Your task to perform on an android device: change the upload size in google photos Image 0: 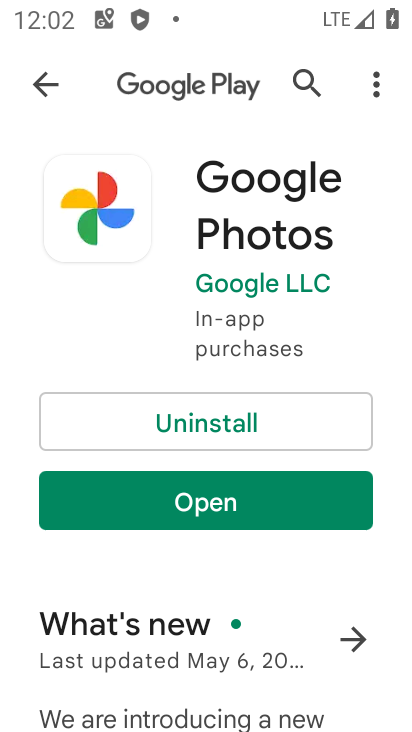
Step 0: press home button
Your task to perform on an android device: change the upload size in google photos Image 1: 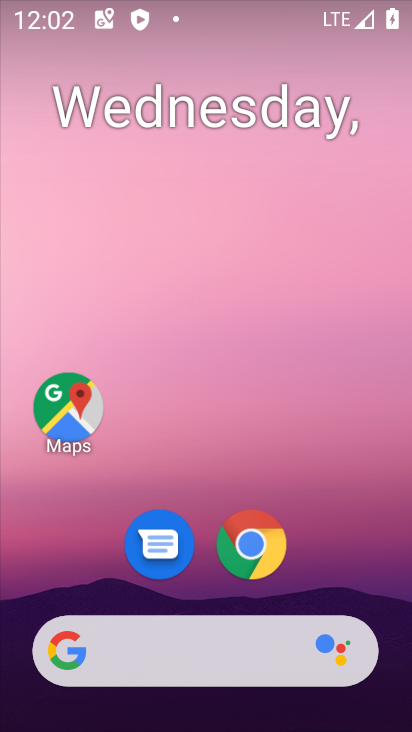
Step 1: drag from (380, 630) to (280, 75)
Your task to perform on an android device: change the upload size in google photos Image 2: 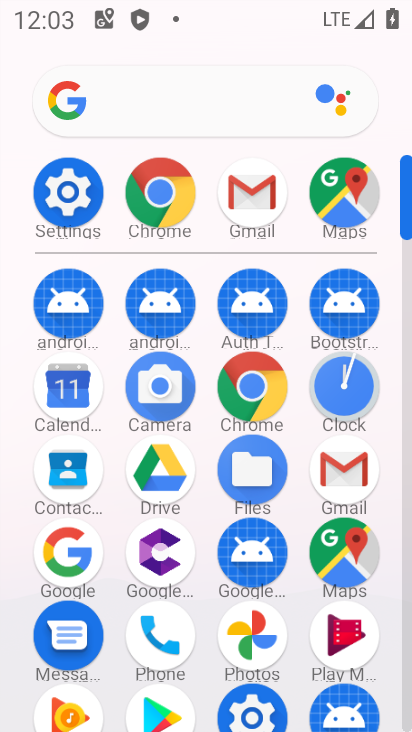
Step 2: click (248, 627)
Your task to perform on an android device: change the upload size in google photos Image 3: 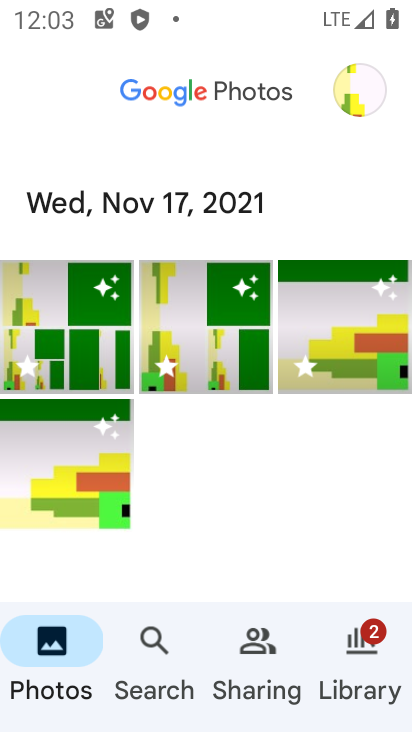
Step 3: click (368, 94)
Your task to perform on an android device: change the upload size in google photos Image 4: 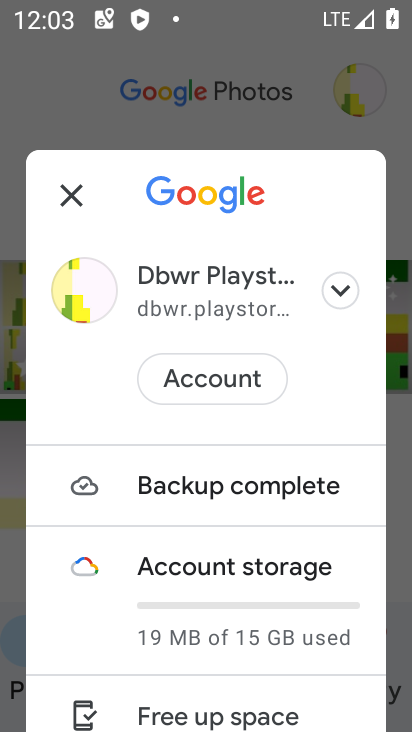
Step 4: drag from (214, 617) to (269, 253)
Your task to perform on an android device: change the upload size in google photos Image 5: 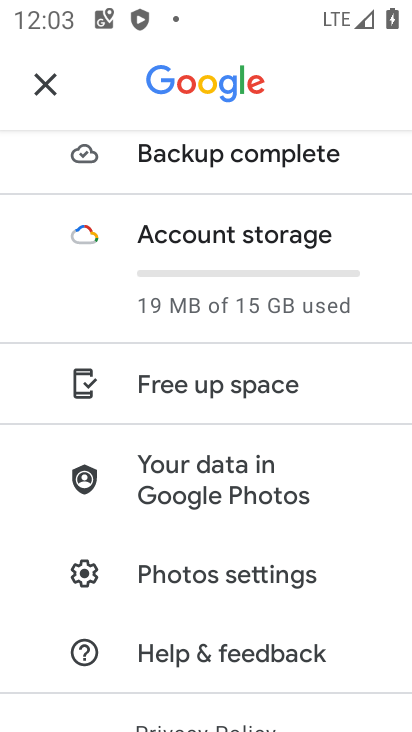
Step 5: click (197, 579)
Your task to perform on an android device: change the upload size in google photos Image 6: 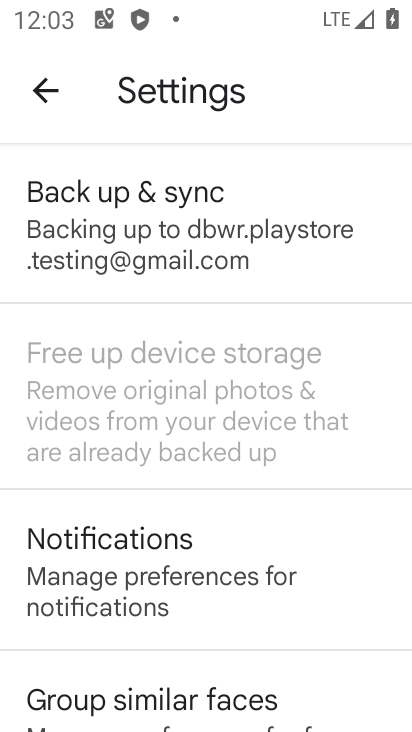
Step 6: click (185, 223)
Your task to perform on an android device: change the upload size in google photos Image 7: 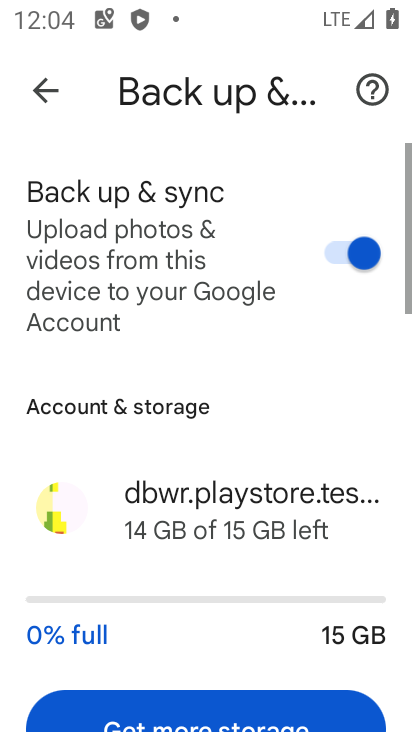
Step 7: drag from (188, 652) to (218, 97)
Your task to perform on an android device: change the upload size in google photos Image 8: 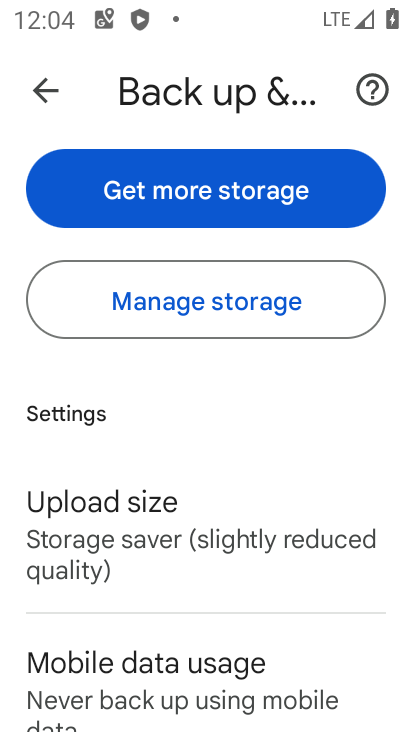
Step 8: click (238, 542)
Your task to perform on an android device: change the upload size in google photos Image 9: 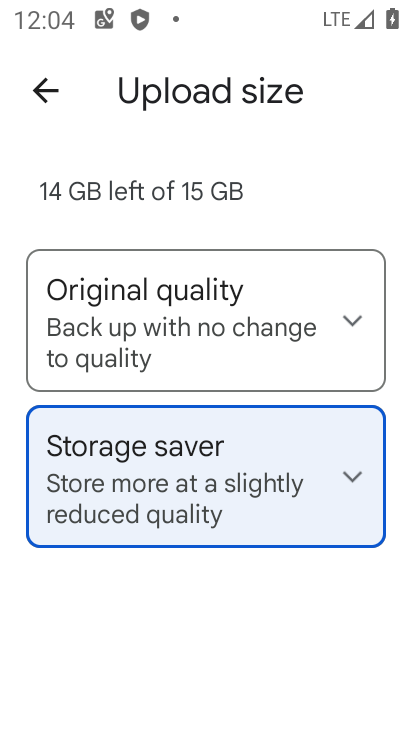
Step 9: click (180, 293)
Your task to perform on an android device: change the upload size in google photos Image 10: 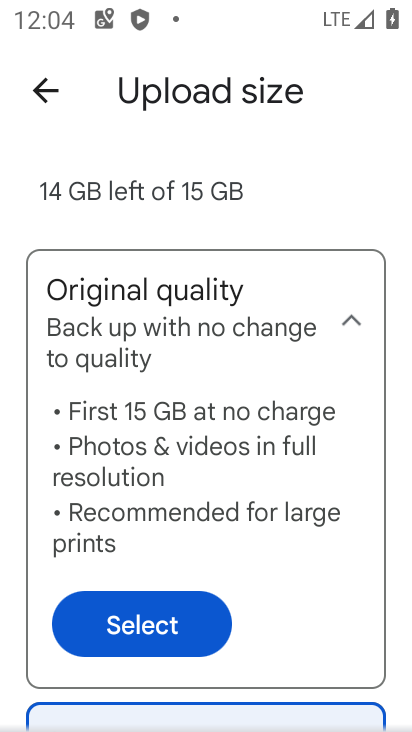
Step 10: click (123, 634)
Your task to perform on an android device: change the upload size in google photos Image 11: 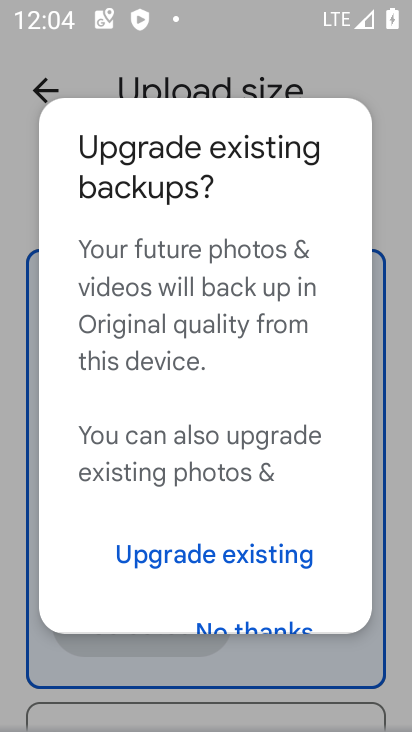
Step 11: click (258, 553)
Your task to perform on an android device: change the upload size in google photos Image 12: 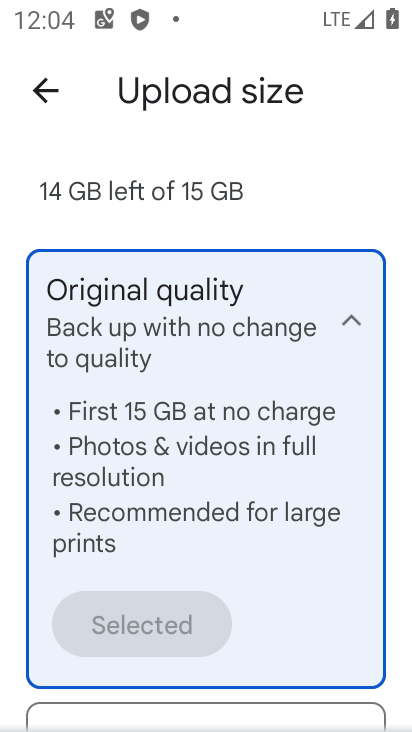
Step 12: task complete